Your task to perform on an android device: open wifi settings Image 0: 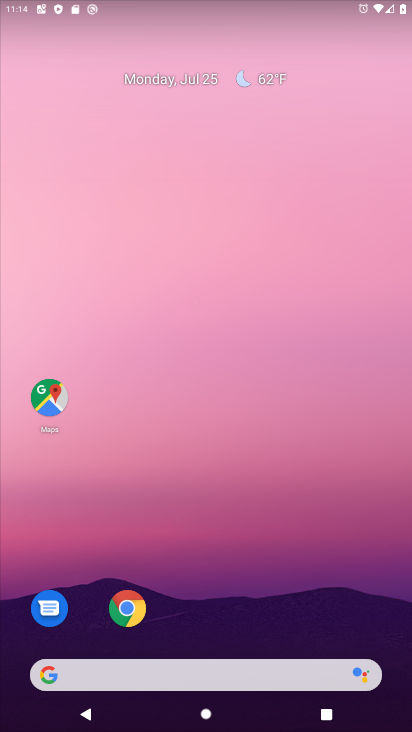
Step 0: drag from (238, 134) to (245, 88)
Your task to perform on an android device: open wifi settings Image 1: 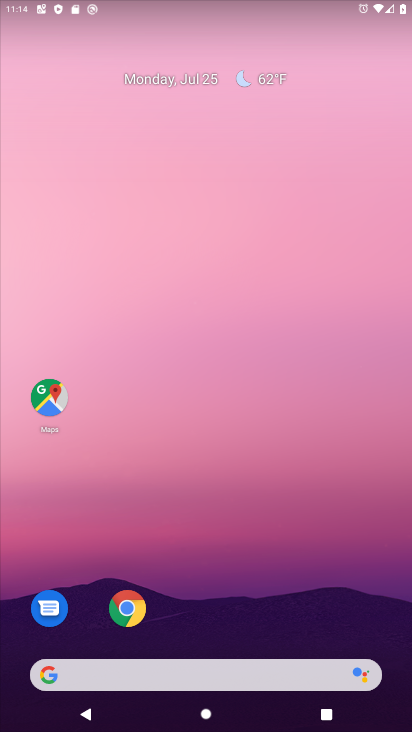
Step 1: drag from (237, 633) to (286, 1)
Your task to perform on an android device: open wifi settings Image 2: 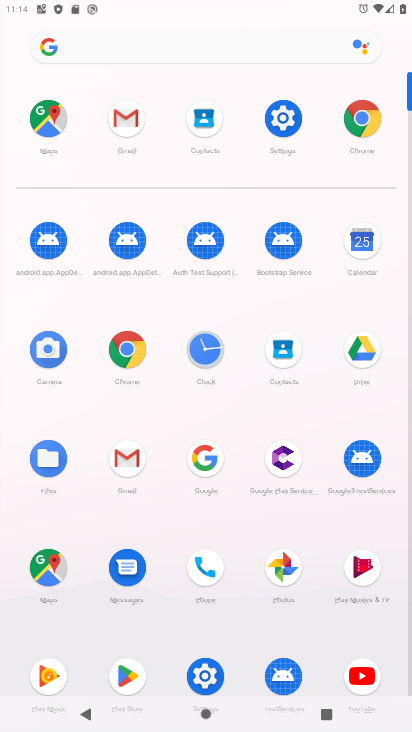
Step 2: click (289, 138)
Your task to perform on an android device: open wifi settings Image 3: 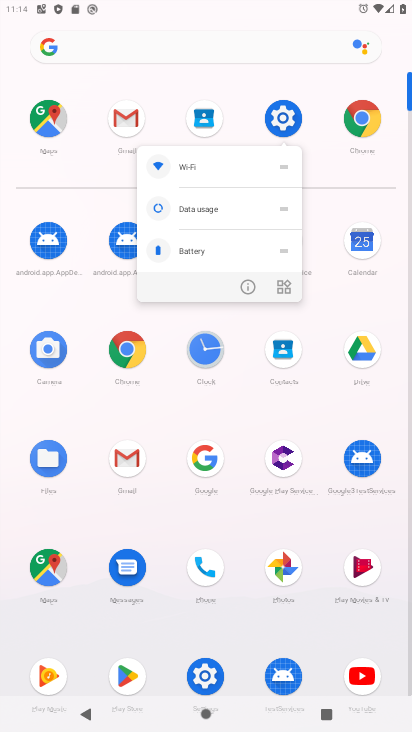
Step 3: click (284, 125)
Your task to perform on an android device: open wifi settings Image 4: 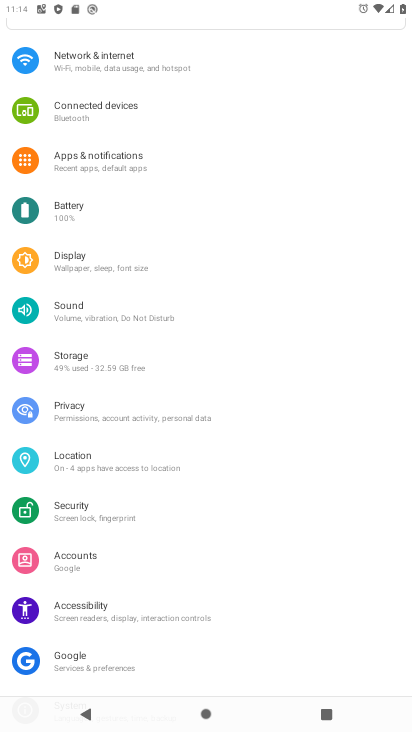
Step 4: drag from (114, 84) to (112, 409)
Your task to perform on an android device: open wifi settings Image 5: 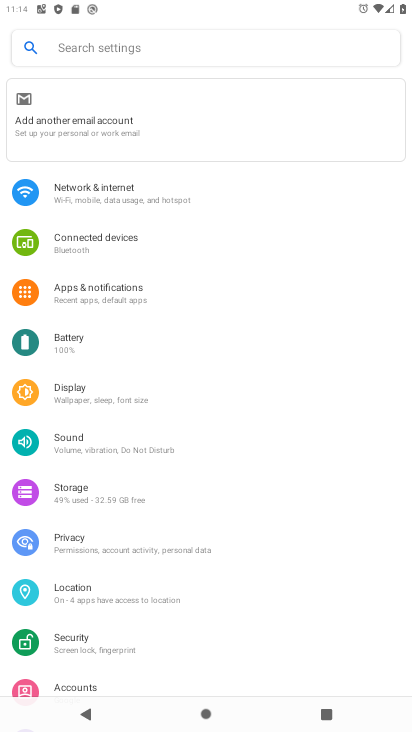
Step 5: click (97, 205)
Your task to perform on an android device: open wifi settings Image 6: 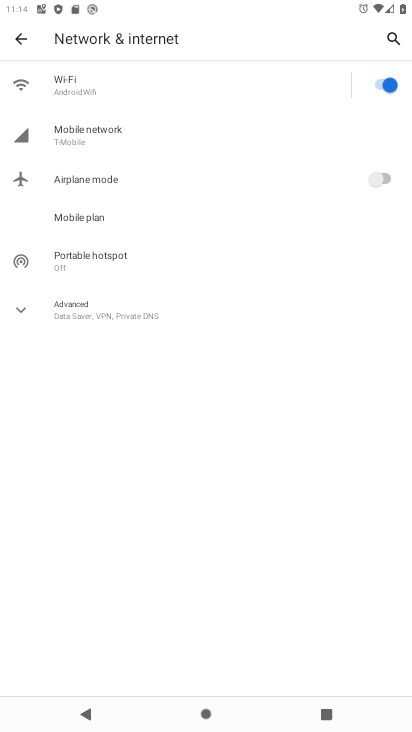
Step 6: click (88, 87)
Your task to perform on an android device: open wifi settings Image 7: 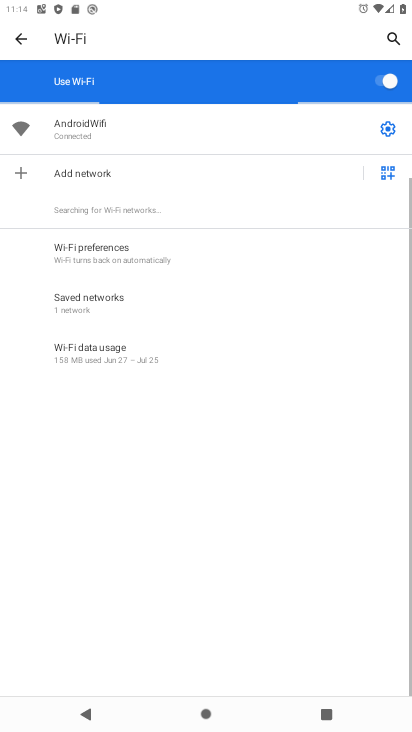
Step 7: task complete